Your task to perform on an android device: turn off notifications settings in the gmail app Image 0: 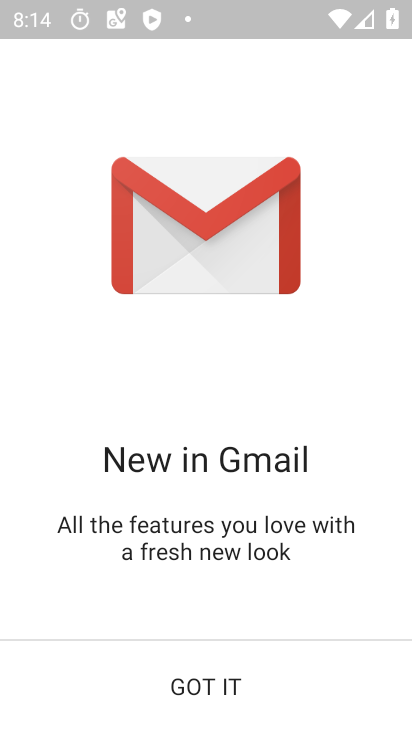
Step 0: press home button
Your task to perform on an android device: turn off notifications settings in the gmail app Image 1: 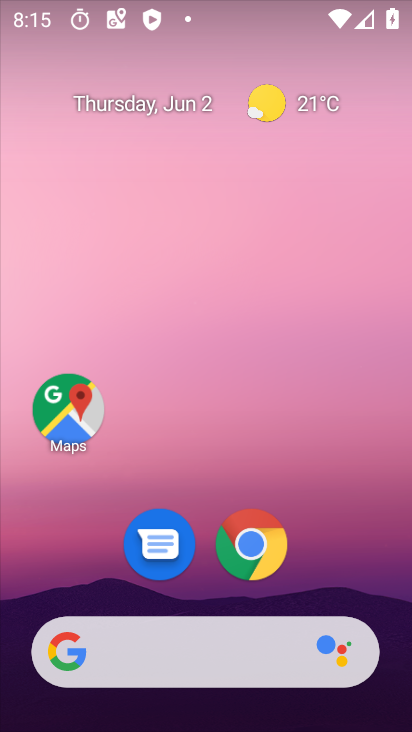
Step 1: drag from (364, 597) to (302, 185)
Your task to perform on an android device: turn off notifications settings in the gmail app Image 2: 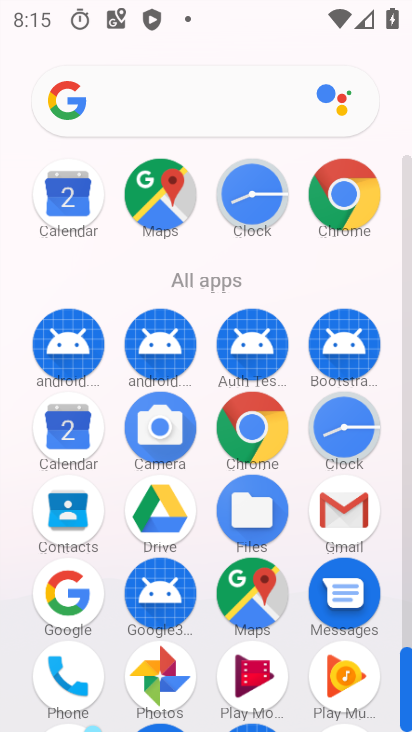
Step 2: click (358, 521)
Your task to perform on an android device: turn off notifications settings in the gmail app Image 3: 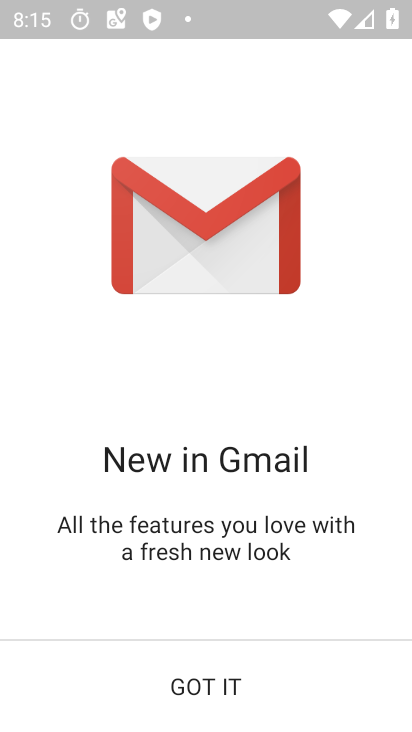
Step 3: click (227, 695)
Your task to perform on an android device: turn off notifications settings in the gmail app Image 4: 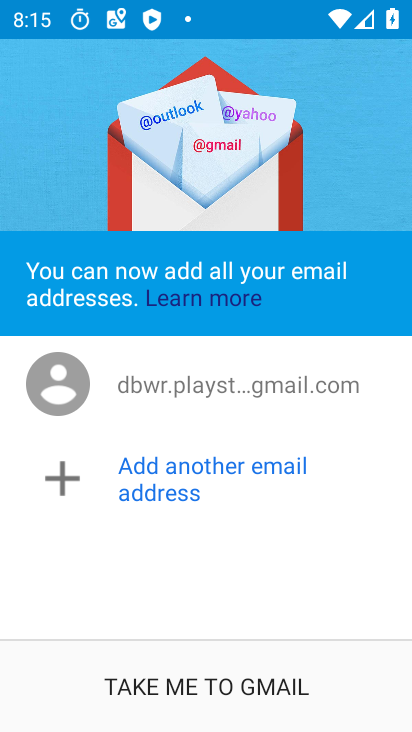
Step 4: click (227, 695)
Your task to perform on an android device: turn off notifications settings in the gmail app Image 5: 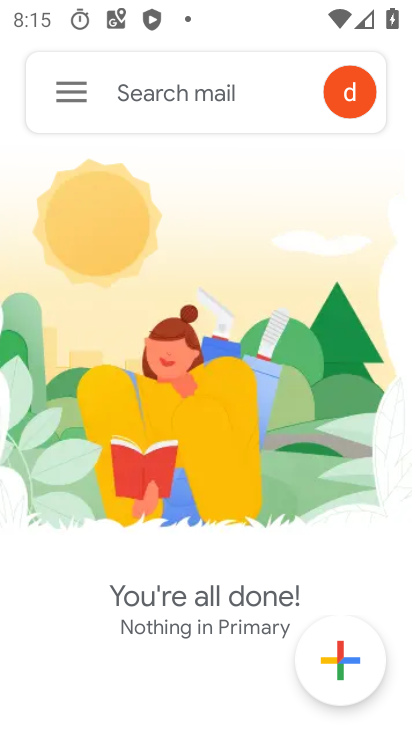
Step 5: click (80, 93)
Your task to perform on an android device: turn off notifications settings in the gmail app Image 6: 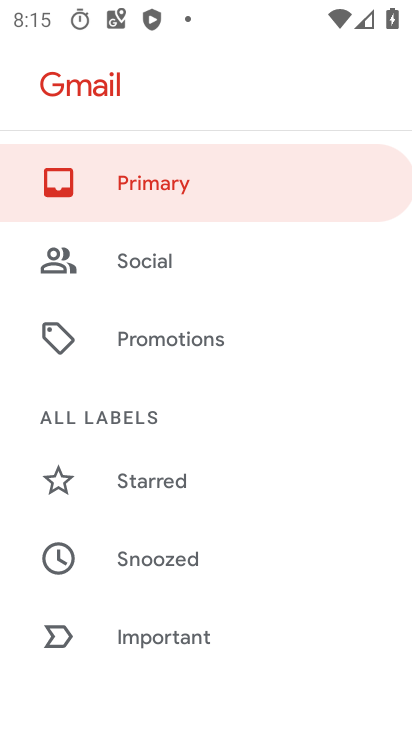
Step 6: drag from (187, 660) to (157, 268)
Your task to perform on an android device: turn off notifications settings in the gmail app Image 7: 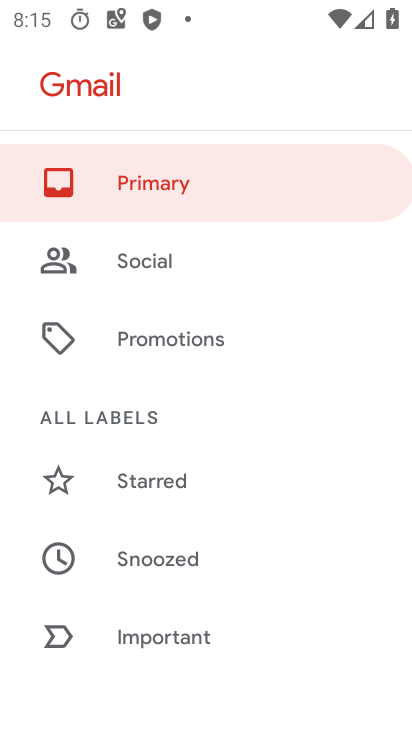
Step 7: drag from (196, 666) to (154, 155)
Your task to perform on an android device: turn off notifications settings in the gmail app Image 8: 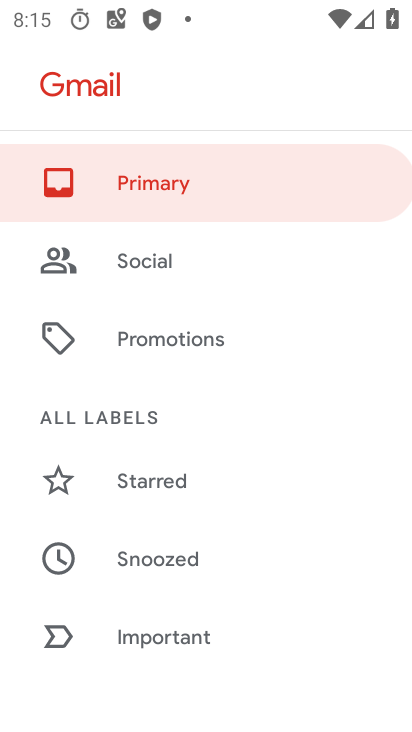
Step 8: drag from (134, 599) to (87, 0)
Your task to perform on an android device: turn off notifications settings in the gmail app Image 9: 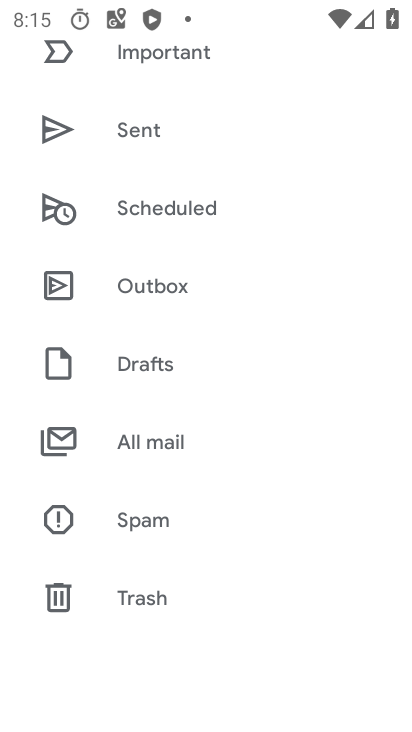
Step 9: drag from (143, 549) to (123, 177)
Your task to perform on an android device: turn off notifications settings in the gmail app Image 10: 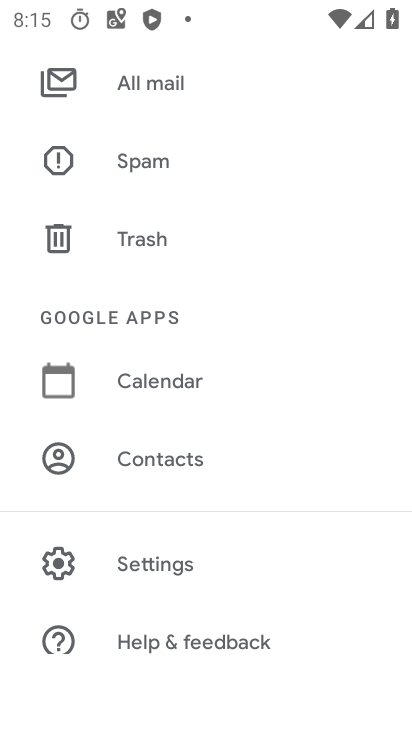
Step 10: click (161, 564)
Your task to perform on an android device: turn off notifications settings in the gmail app Image 11: 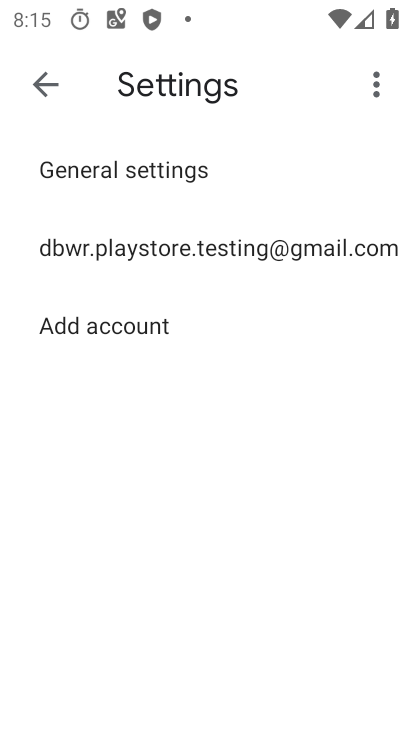
Step 11: click (166, 234)
Your task to perform on an android device: turn off notifications settings in the gmail app Image 12: 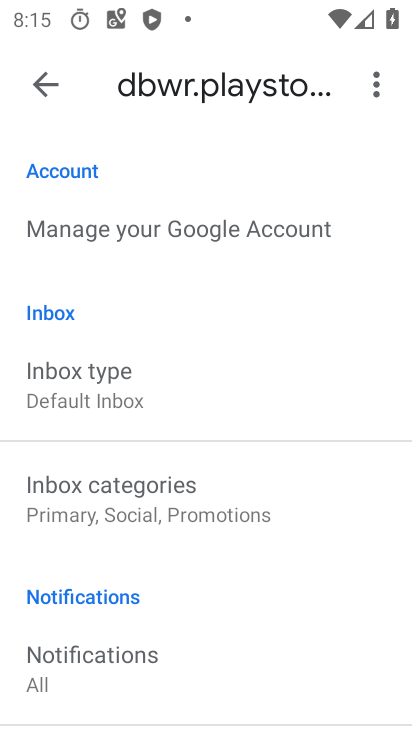
Step 12: drag from (157, 563) to (152, 237)
Your task to perform on an android device: turn off notifications settings in the gmail app Image 13: 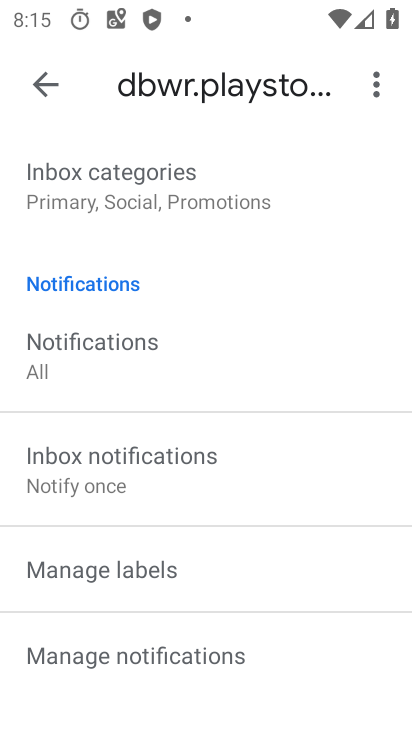
Step 13: drag from (149, 593) to (127, 214)
Your task to perform on an android device: turn off notifications settings in the gmail app Image 14: 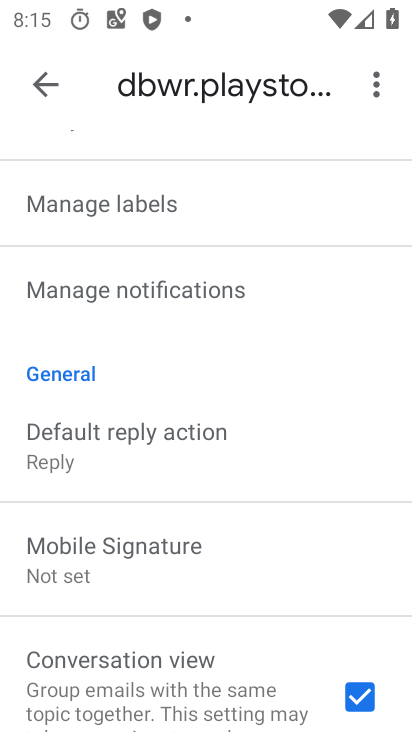
Step 14: click (154, 287)
Your task to perform on an android device: turn off notifications settings in the gmail app Image 15: 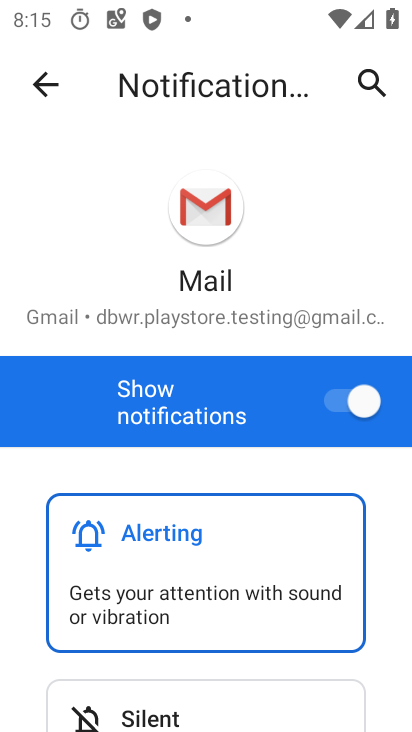
Step 15: drag from (197, 473) to (167, 134)
Your task to perform on an android device: turn off notifications settings in the gmail app Image 16: 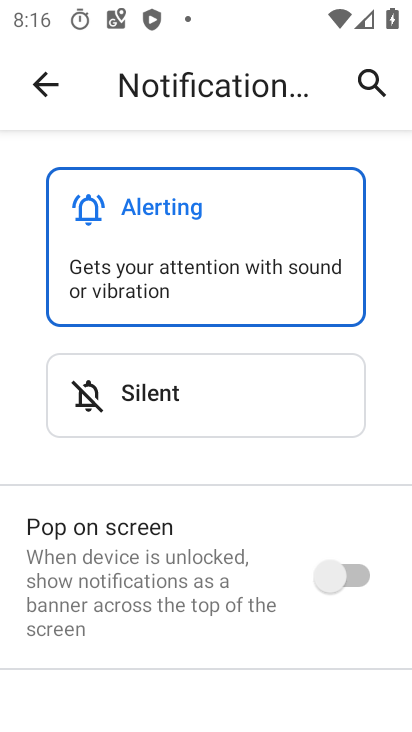
Step 16: drag from (394, 398) to (366, 82)
Your task to perform on an android device: turn off notifications settings in the gmail app Image 17: 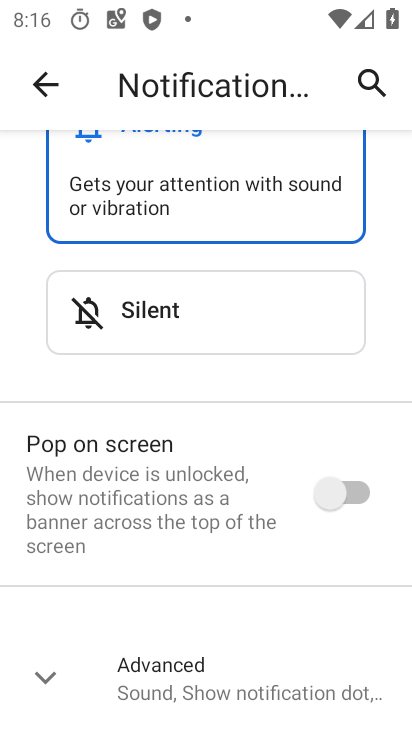
Step 17: click (292, 694)
Your task to perform on an android device: turn off notifications settings in the gmail app Image 18: 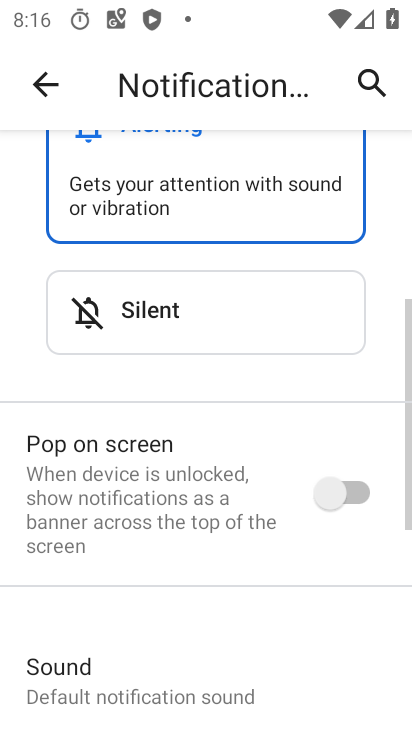
Step 18: drag from (272, 634) to (250, 142)
Your task to perform on an android device: turn off notifications settings in the gmail app Image 19: 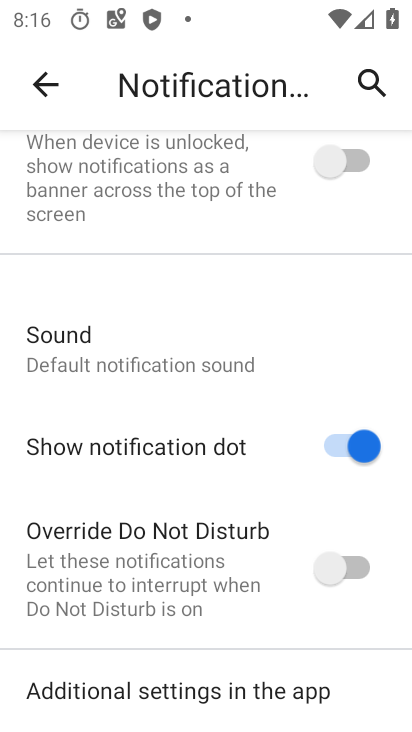
Step 19: click (330, 431)
Your task to perform on an android device: turn off notifications settings in the gmail app Image 20: 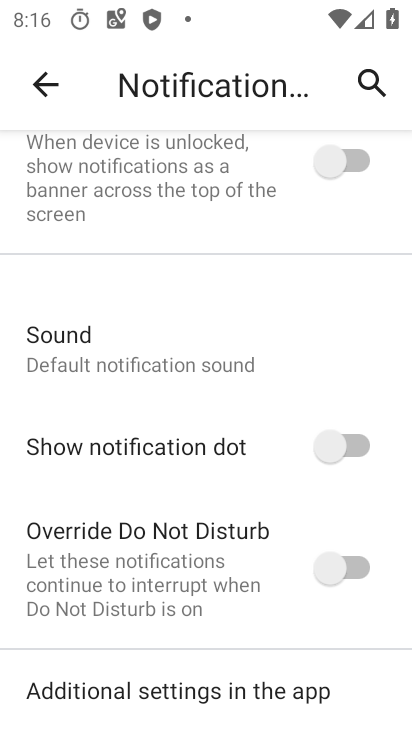
Step 20: task complete